Your task to perform on an android device: Go to Reddit.com Image 0: 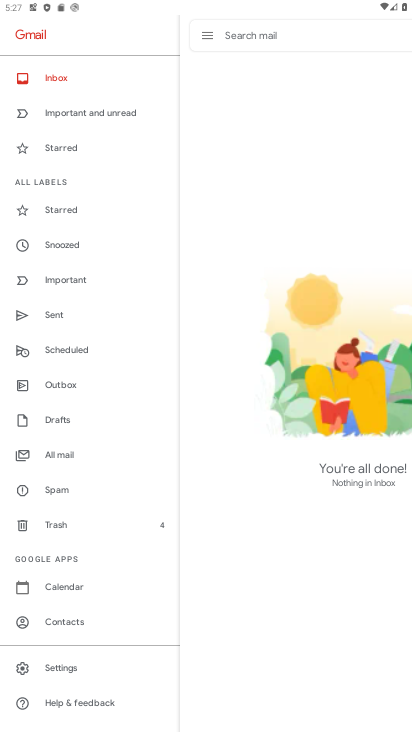
Step 0: press home button
Your task to perform on an android device: Go to Reddit.com Image 1: 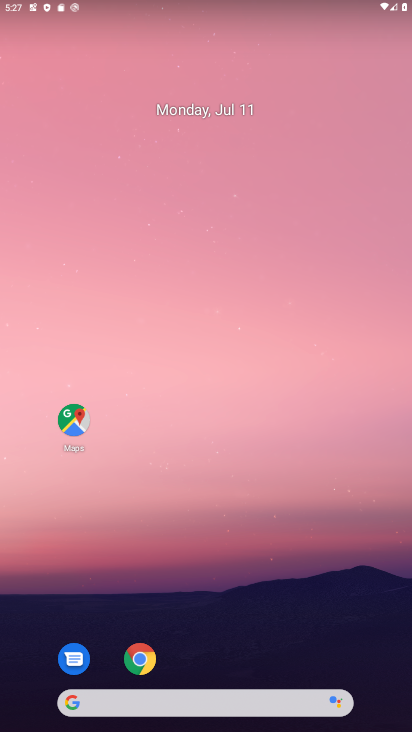
Step 1: click (141, 659)
Your task to perform on an android device: Go to Reddit.com Image 2: 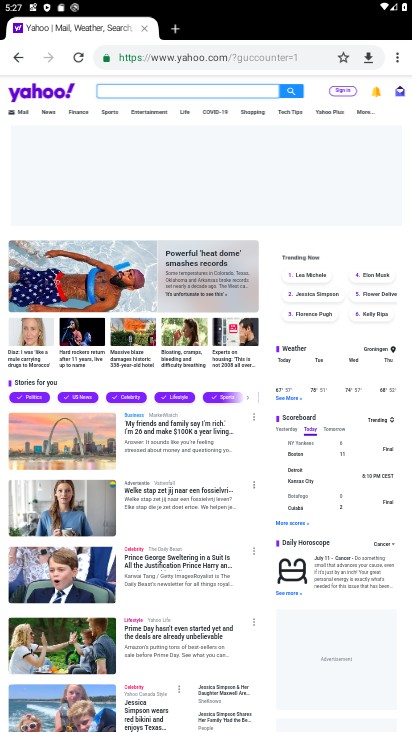
Step 2: click (275, 50)
Your task to perform on an android device: Go to Reddit.com Image 3: 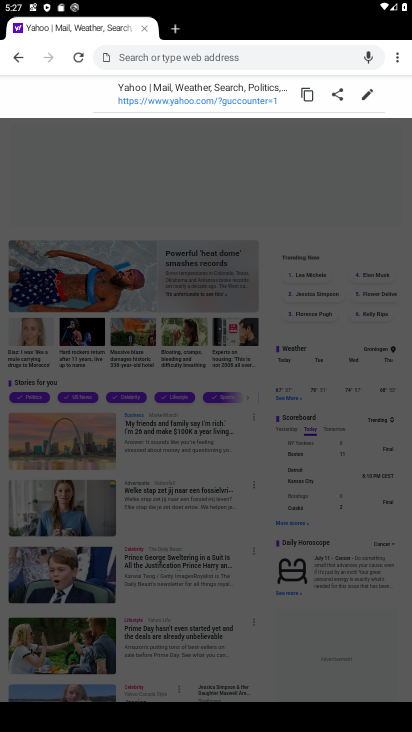
Step 3: type "Reddit.com"
Your task to perform on an android device: Go to Reddit.com Image 4: 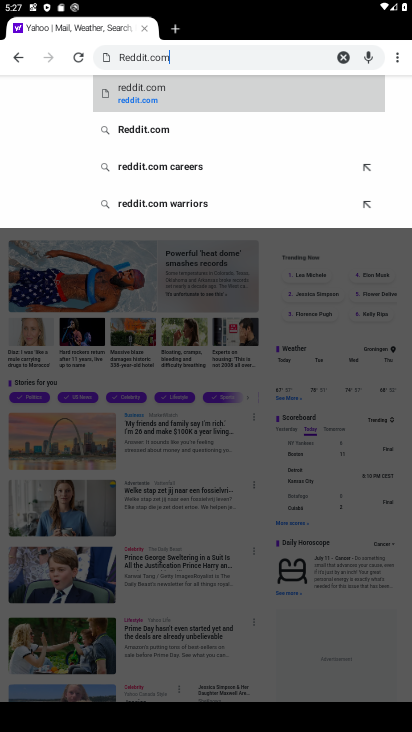
Step 4: click (151, 87)
Your task to perform on an android device: Go to Reddit.com Image 5: 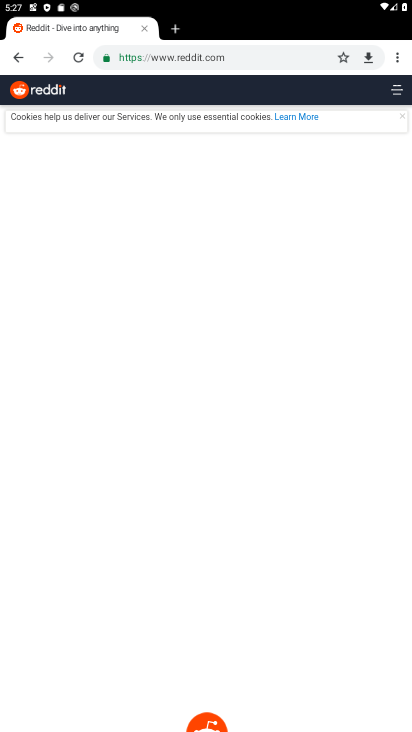
Step 5: task complete